Your task to perform on an android device: stop showing notifications on the lock screen Image 0: 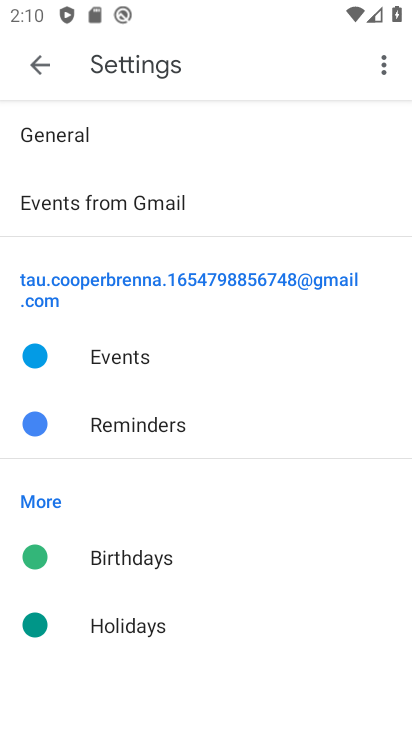
Step 0: click (197, 617)
Your task to perform on an android device: stop showing notifications on the lock screen Image 1: 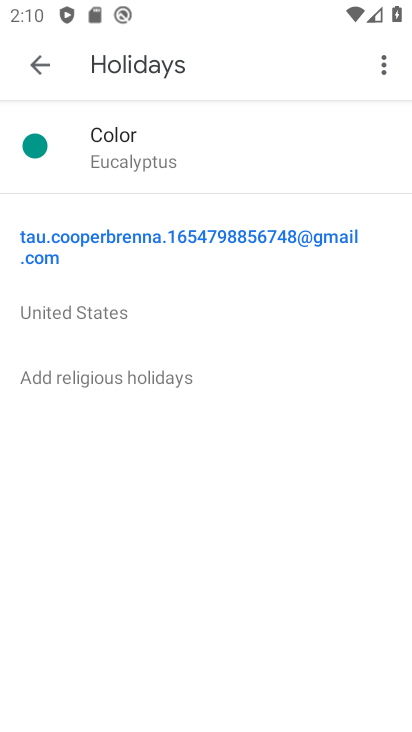
Step 1: press home button
Your task to perform on an android device: stop showing notifications on the lock screen Image 2: 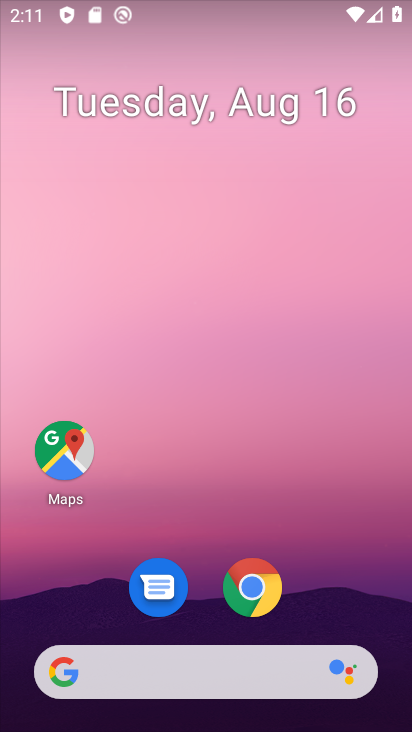
Step 2: drag from (202, 568) to (229, 141)
Your task to perform on an android device: stop showing notifications on the lock screen Image 3: 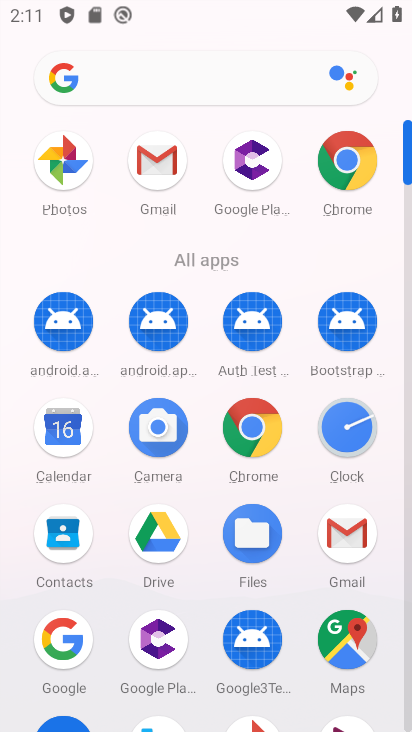
Step 3: drag from (148, 557) to (211, 179)
Your task to perform on an android device: stop showing notifications on the lock screen Image 4: 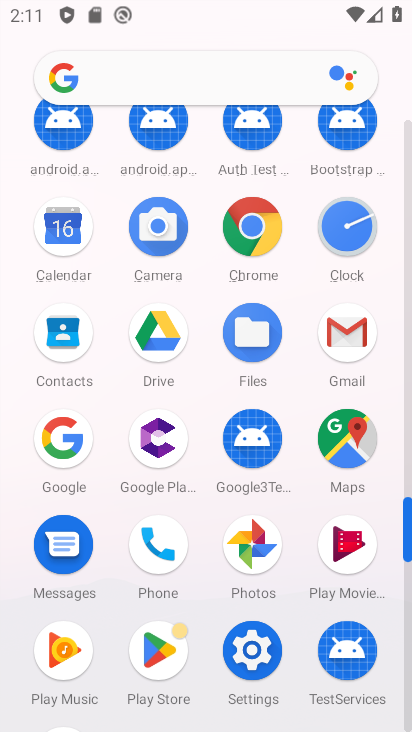
Step 4: click (245, 659)
Your task to perform on an android device: stop showing notifications on the lock screen Image 5: 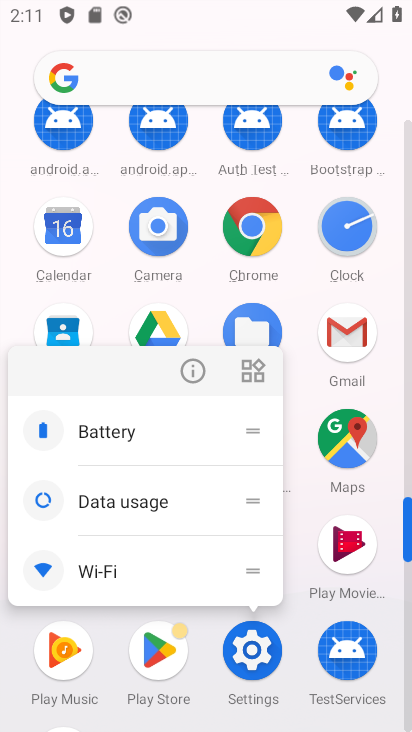
Step 5: click (256, 652)
Your task to perform on an android device: stop showing notifications on the lock screen Image 6: 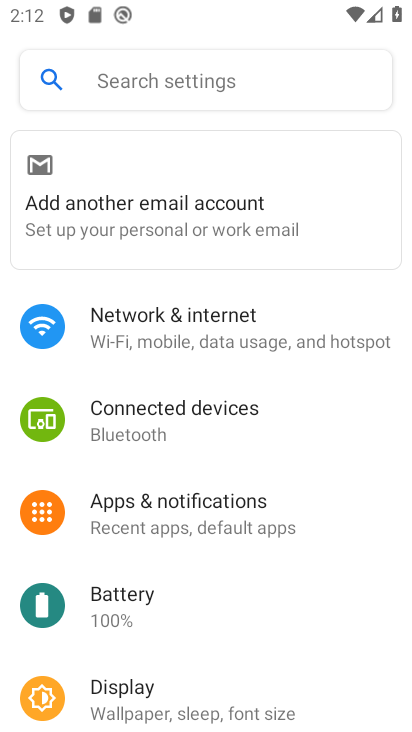
Step 6: click (205, 490)
Your task to perform on an android device: stop showing notifications on the lock screen Image 7: 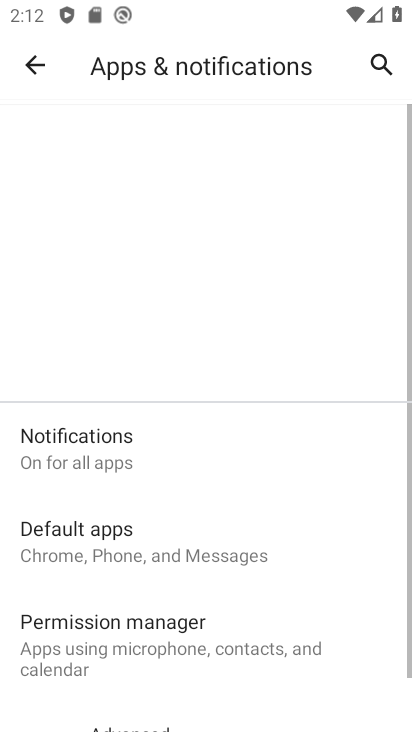
Step 7: drag from (240, 655) to (246, 313)
Your task to perform on an android device: stop showing notifications on the lock screen Image 8: 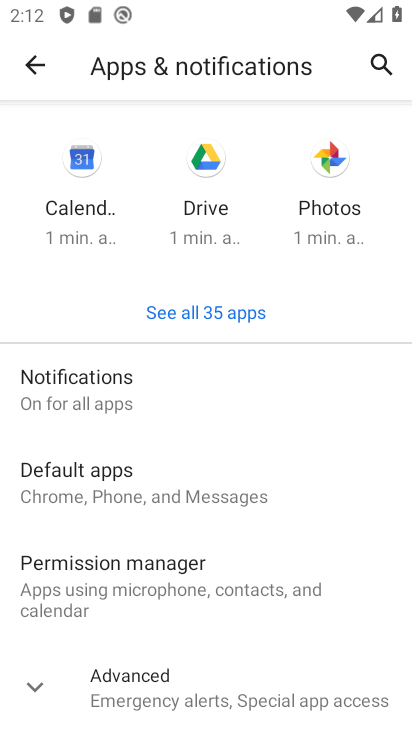
Step 8: click (191, 688)
Your task to perform on an android device: stop showing notifications on the lock screen Image 9: 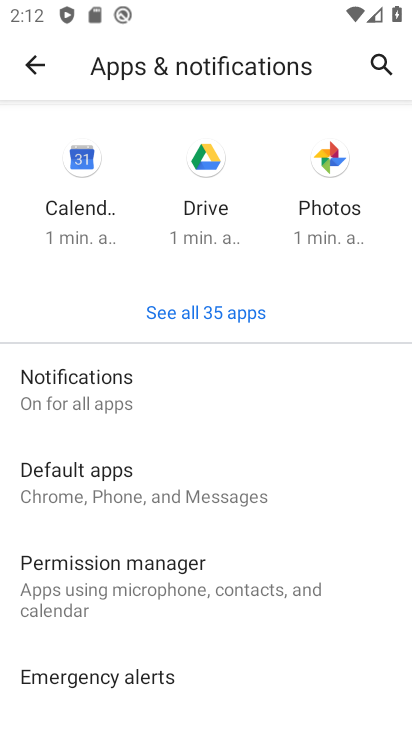
Step 9: drag from (178, 633) to (220, 254)
Your task to perform on an android device: stop showing notifications on the lock screen Image 10: 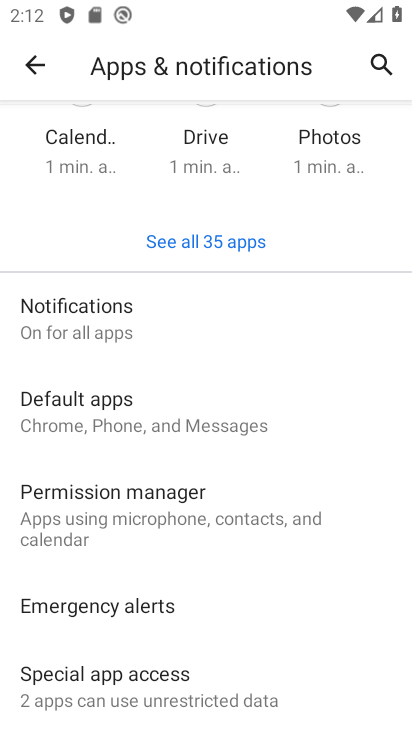
Step 10: click (93, 325)
Your task to perform on an android device: stop showing notifications on the lock screen Image 11: 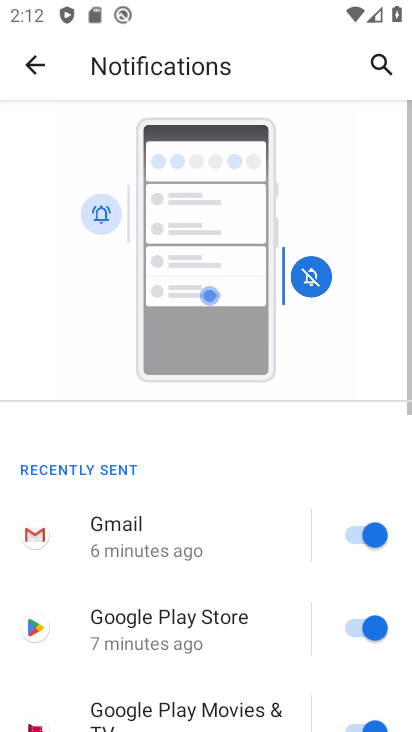
Step 11: drag from (193, 654) to (266, 44)
Your task to perform on an android device: stop showing notifications on the lock screen Image 12: 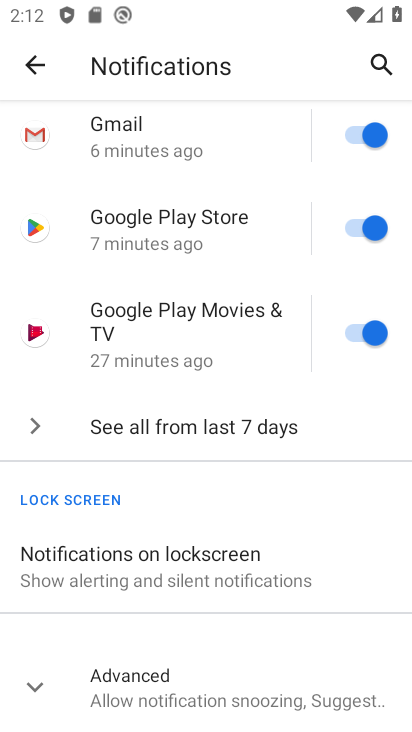
Step 12: click (179, 574)
Your task to perform on an android device: stop showing notifications on the lock screen Image 13: 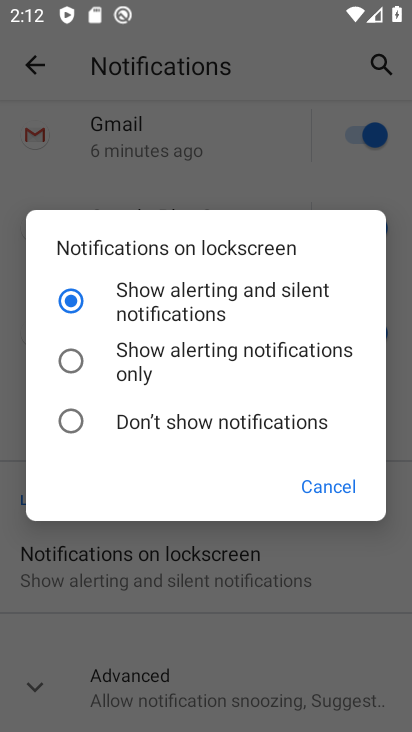
Step 13: click (162, 408)
Your task to perform on an android device: stop showing notifications on the lock screen Image 14: 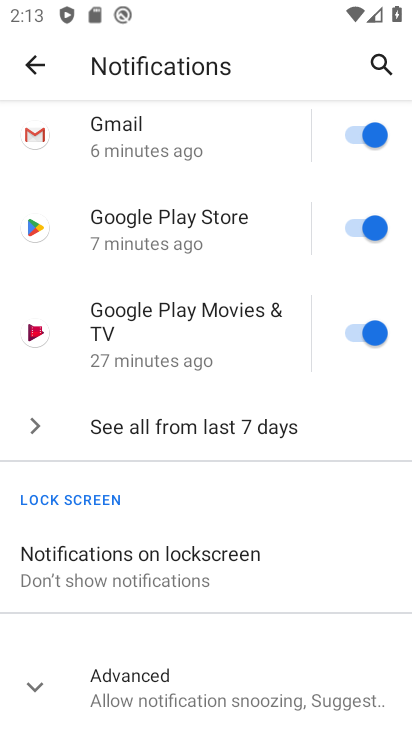
Step 14: task complete